Your task to perform on an android device: Go to calendar. Show me events next week Image 0: 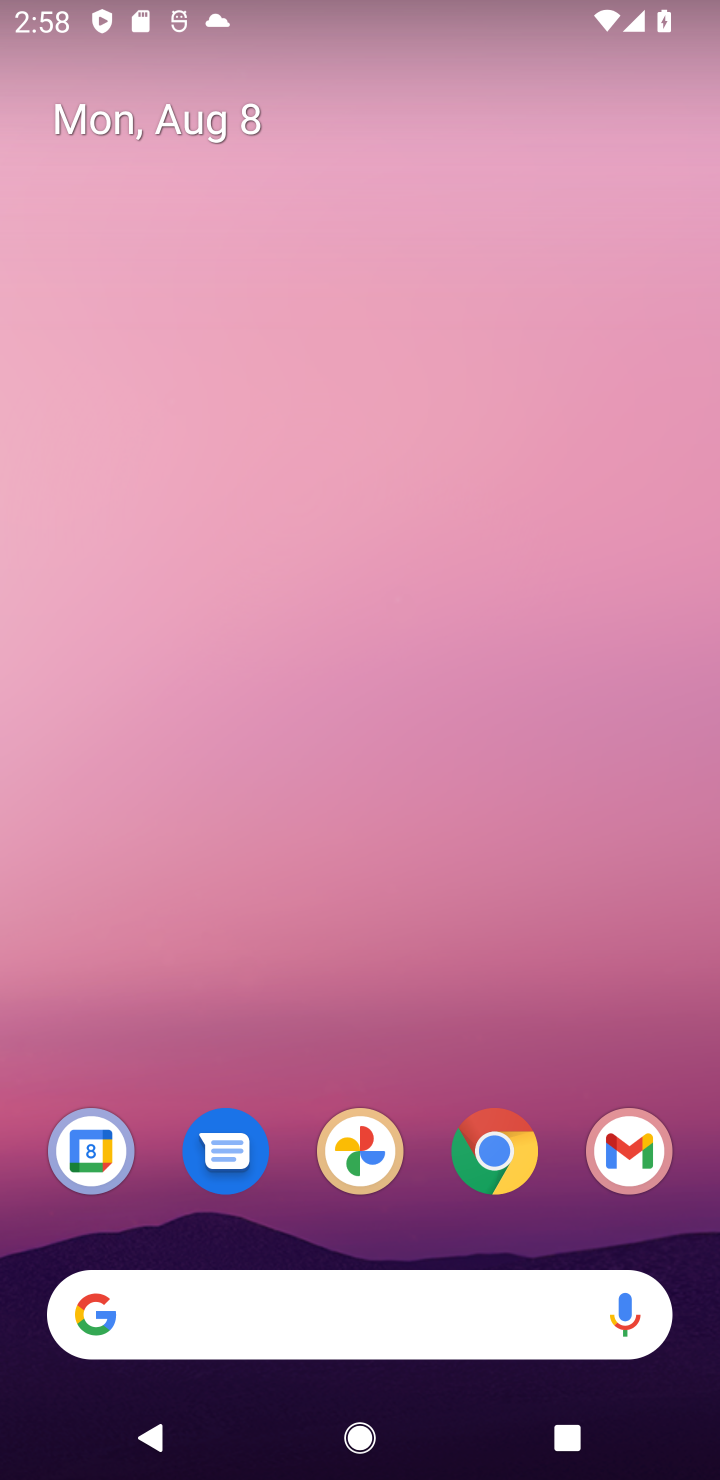
Step 0: drag from (387, 1074) to (324, 199)
Your task to perform on an android device: Go to calendar. Show me events next week Image 1: 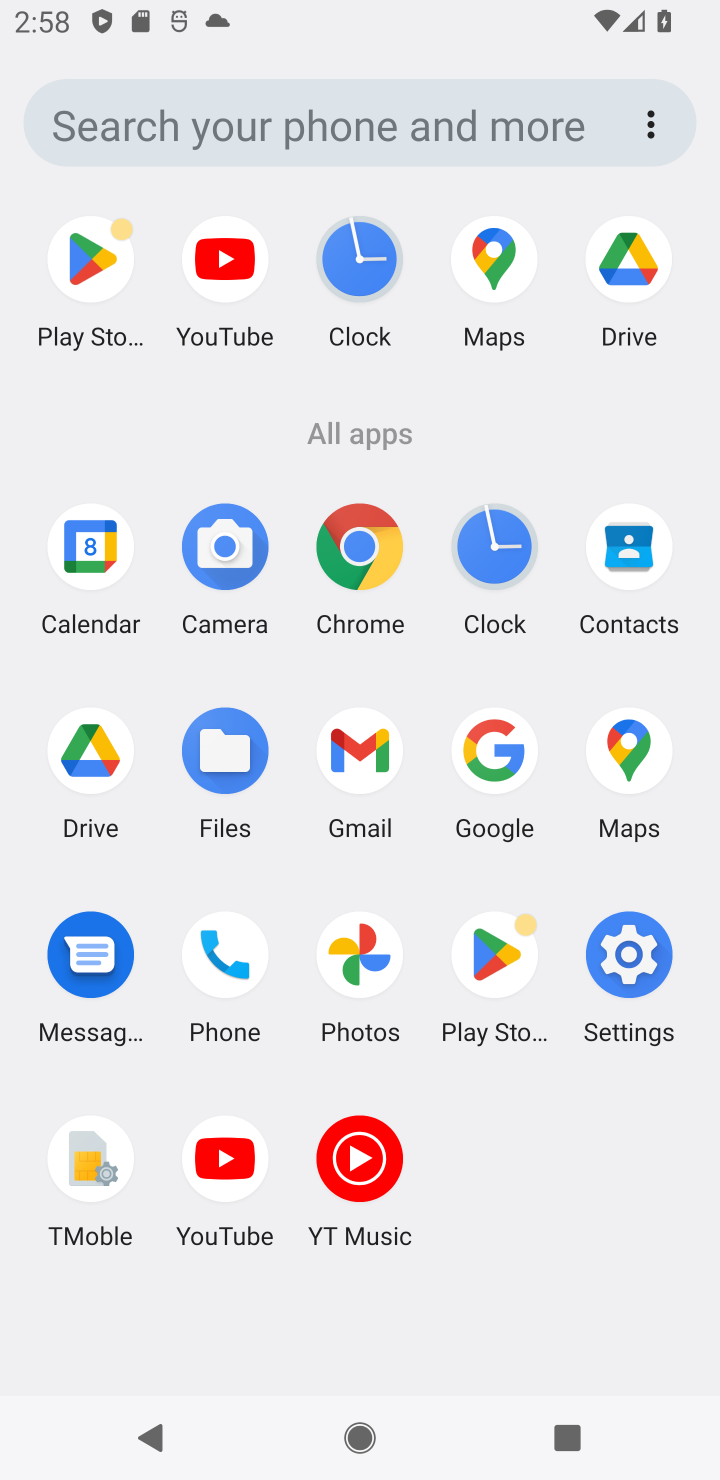
Step 1: click (94, 569)
Your task to perform on an android device: Go to calendar. Show me events next week Image 2: 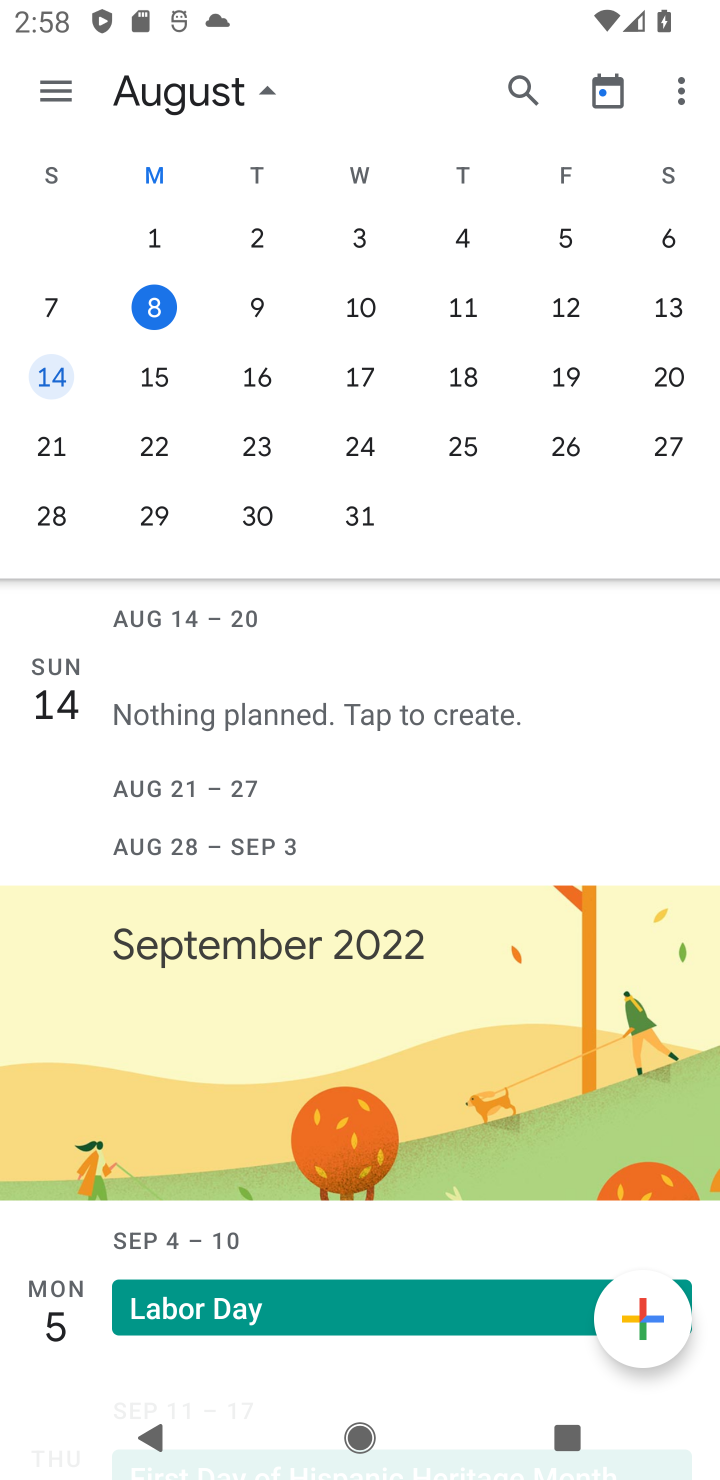
Step 2: task complete